Your task to perform on an android device: clear history in the chrome app Image 0: 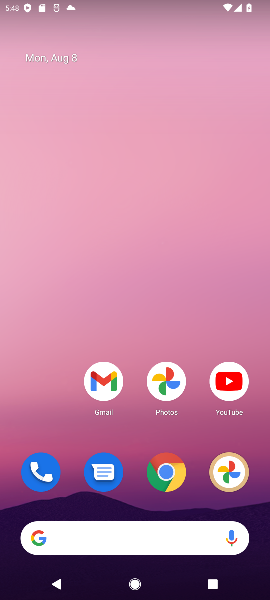
Step 0: press home button
Your task to perform on an android device: clear history in the chrome app Image 1: 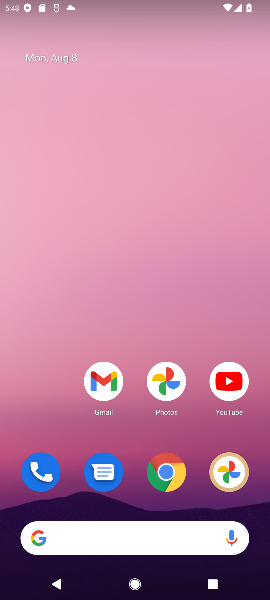
Step 1: press home button
Your task to perform on an android device: clear history in the chrome app Image 2: 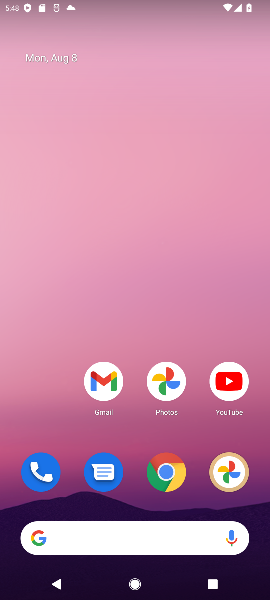
Step 2: click (171, 478)
Your task to perform on an android device: clear history in the chrome app Image 3: 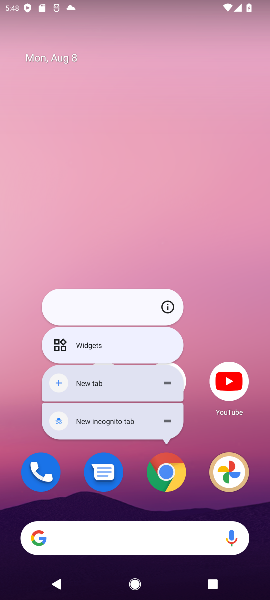
Step 3: click (171, 478)
Your task to perform on an android device: clear history in the chrome app Image 4: 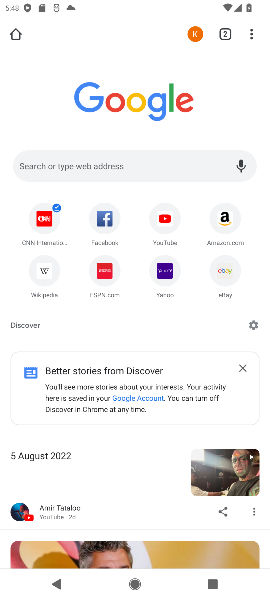
Step 4: drag from (255, 31) to (155, 180)
Your task to perform on an android device: clear history in the chrome app Image 5: 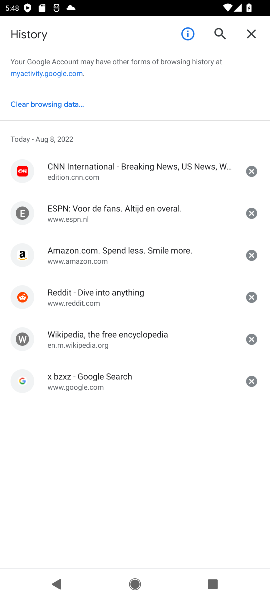
Step 5: click (31, 105)
Your task to perform on an android device: clear history in the chrome app Image 6: 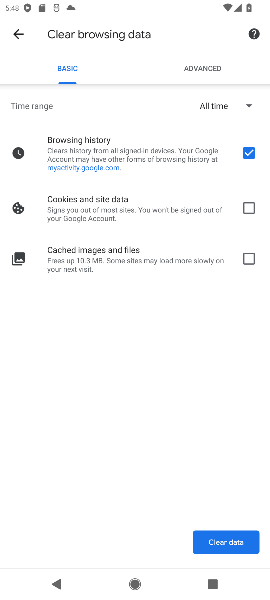
Step 6: click (221, 540)
Your task to perform on an android device: clear history in the chrome app Image 7: 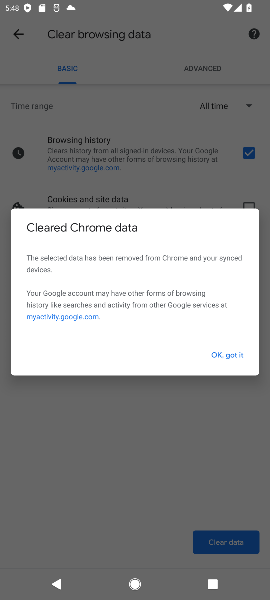
Step 7: click (217, 358)
Your task to perform on an android device: clear history in the chrome app Image 8: 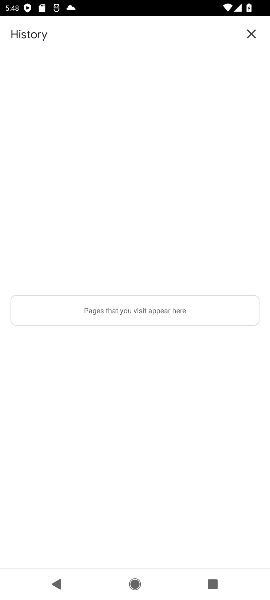
Step 8: task complete